Your task to perform on an android device: Open notification settings Image 0: 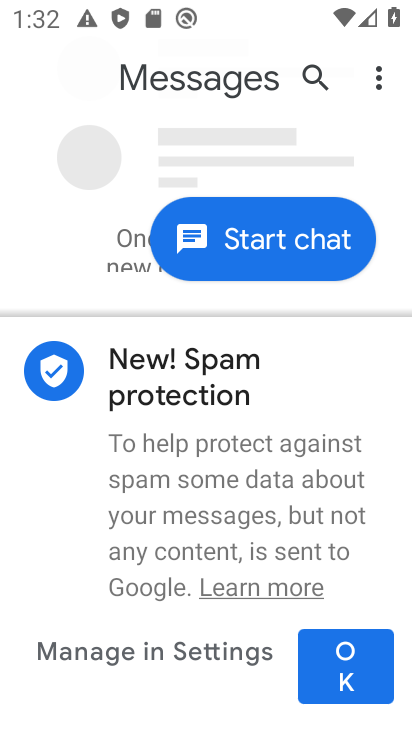
Step 0: press home button
Your task to perform on an android device: Open notification settings Image 1: 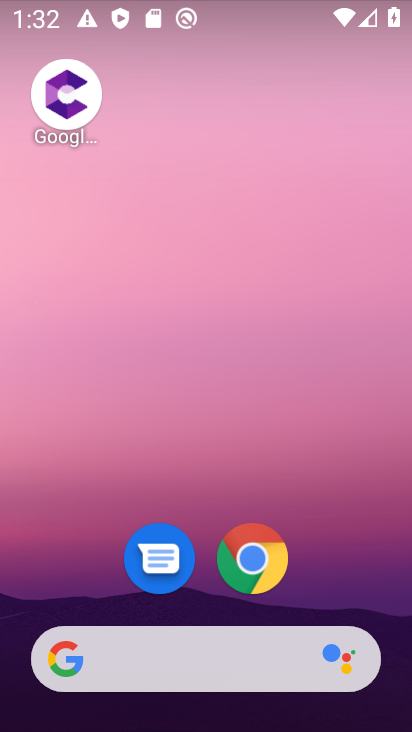
Step 1: drag from (208, 495) to (191, 79)
Your task to perform on an android device: Open notification settings Image 2: 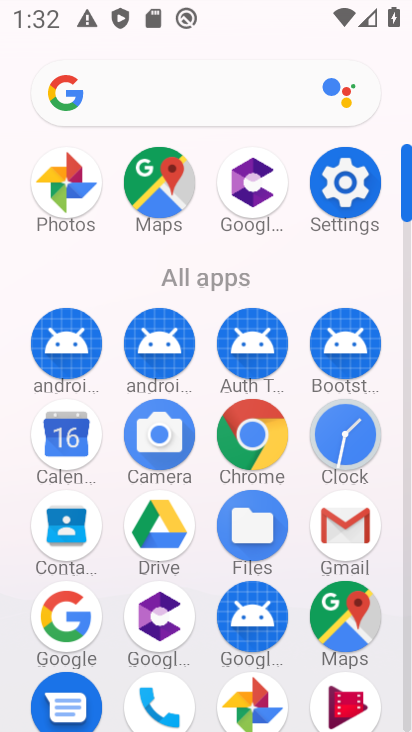
Step 2: click (348, 192)
Your task to perform on an android device: Open notification settings Image 3: 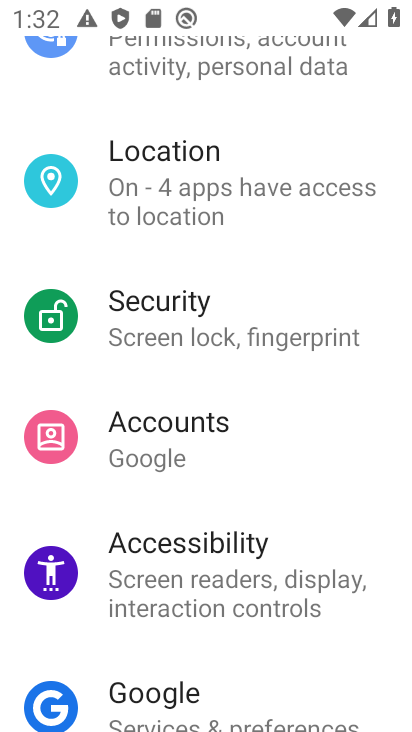
Step 3: drag from (255, 318) to (255, 678)
Your task to perform on an android device: Open notification settings Image 4: 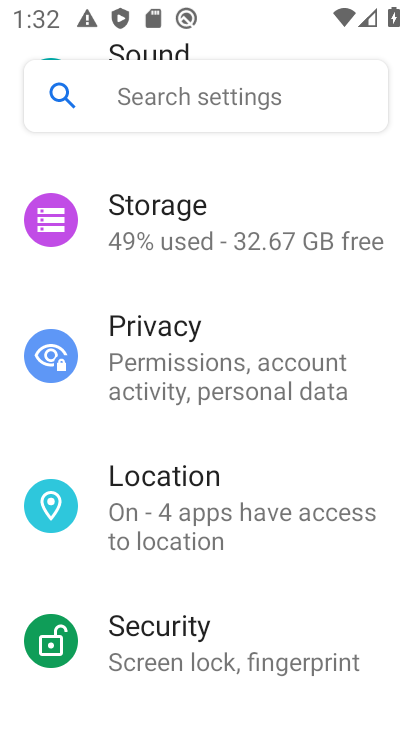
Step 4: drag from (219, 285) to (270, 610)
Your task to perform on an android device: Open notification settings Image 5: 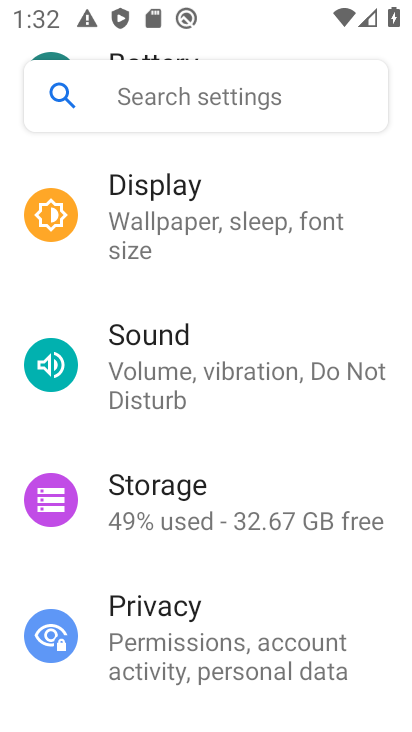
Step 5: drag from (223, 248) to (262, 550)
Your task to perform on an android device: Open notification settings Image 6: 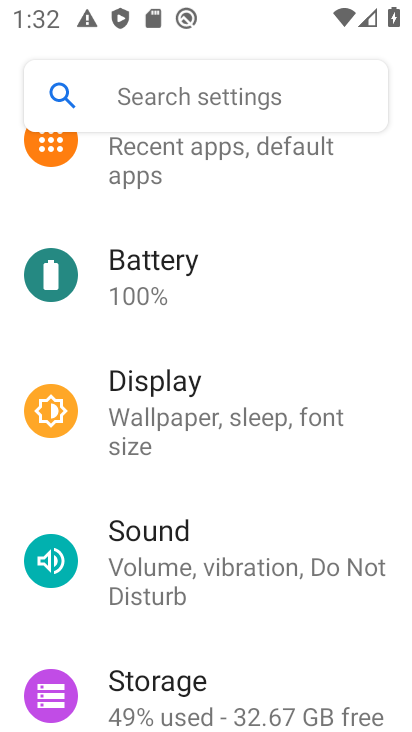
Step 6: drag from (222, 223) to (265, 527)
Your task to perform on an android device: Open notification settings Image 7: 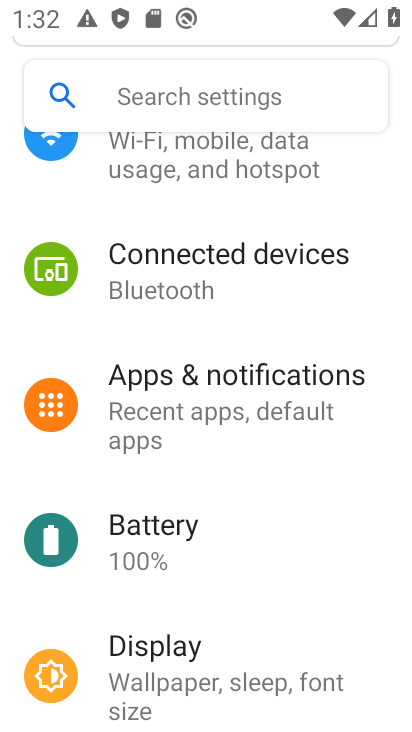
Step 7: click (235, 405)
Your task to perform on an android device: Open notification settings Image 8: 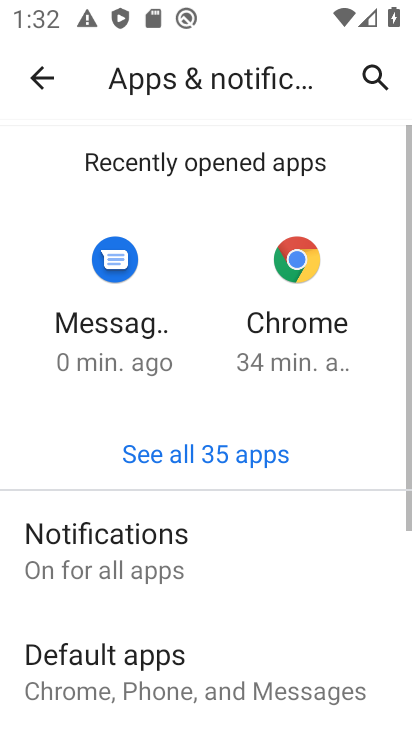
Step 8: click (206, 560)
Your task to perform on an android device: Open notification settings Image 9: 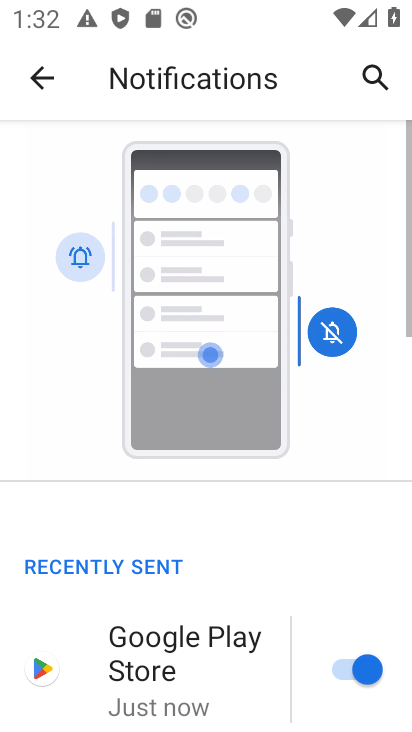
Step 9: task complete